Your task to perform on an android device: read, delete, or share a saved page in the chrome app Image 0: 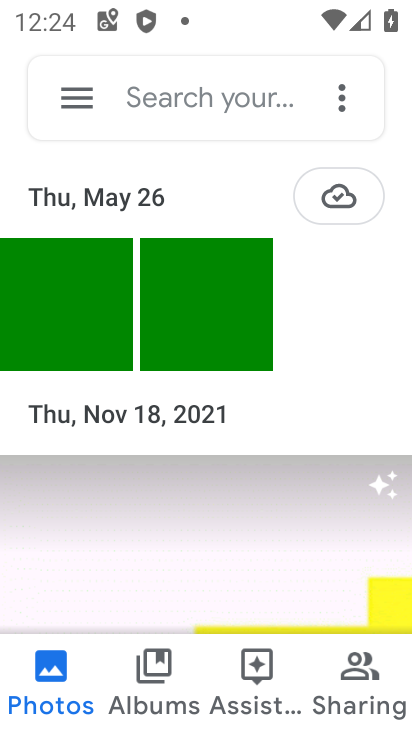
Step 0: press home button
Your task to perform on an android device: read, delete, or share a saved page in the chrome app Image 1: 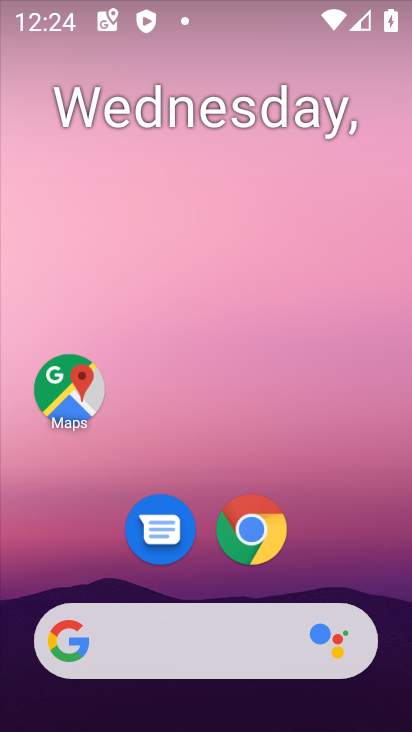
Step 1: click (252, 531)
Your task to perform on an android device: read, delete, or share a saved page in the chrome app Image 2: 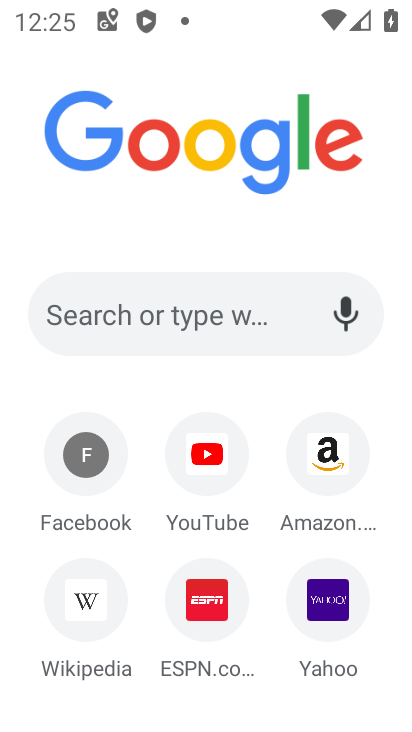
Step 2: drag from (293, 178) to (247, 500)
Your task to perform on an android device: read, delete, or share a saved page in the chrome app Image 3: 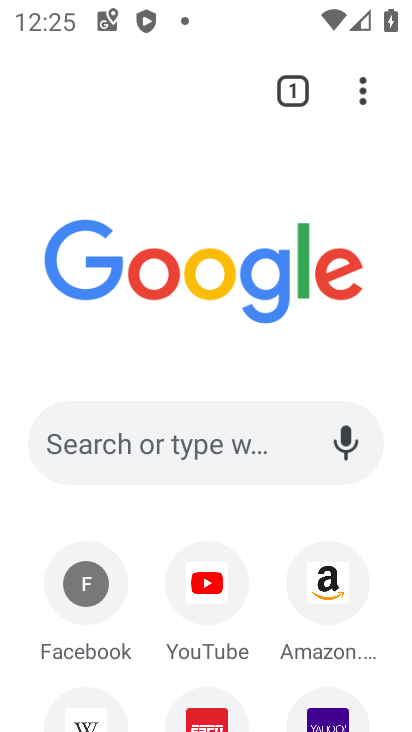
Step 3: click (360, 95)
Your task to perform on an android device: read, delete, or share a saved page in the chrome app Image 4: 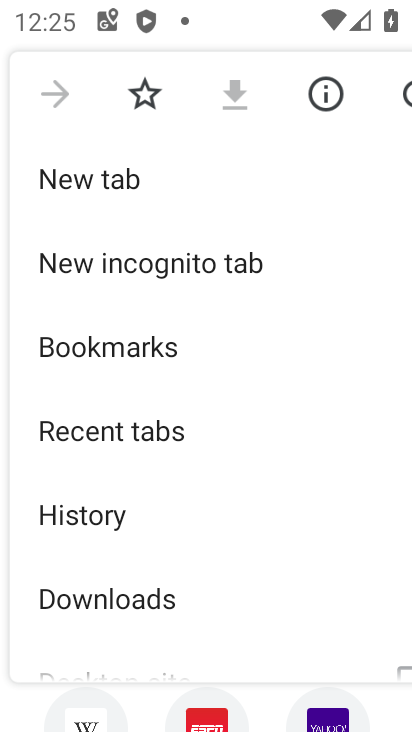
Step 4: click (104, 596)
Your task to perform on an android device: read, delete, or share a saved page in the chrome app Image 5: 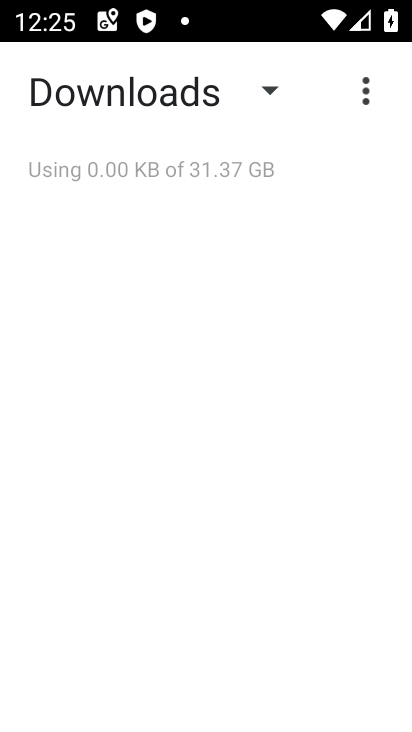
Step 5: click (264, 94)
Your task to perform on an android device: read, delete, or share a saved page in the chrome app Image 6: 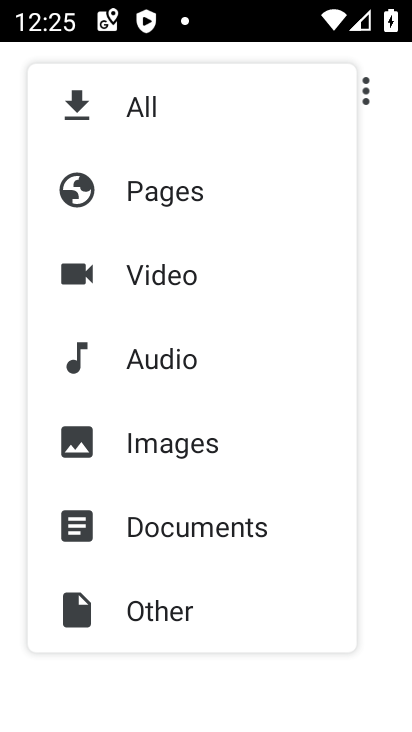
Step 6: click (158, 196)
Your task to perform on an android device: read, delete, or share a saved page in the chrome app Image 7: 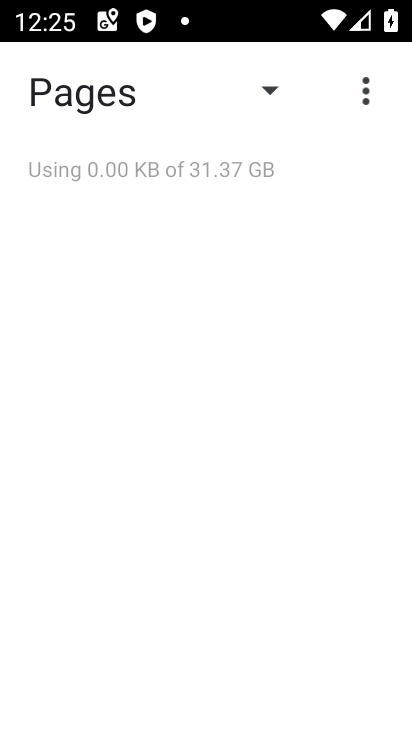
Step 7: task complete